Your task to perform on an android device: Go to settings Image 0: 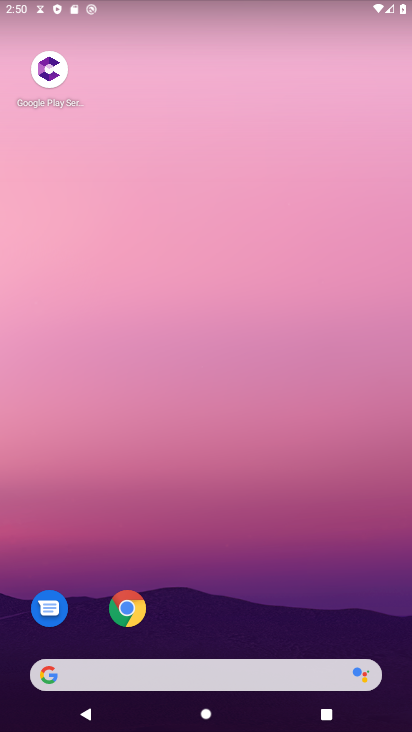
Step 0: drag from (227, 595) to (227, 196)
Your task to perform on an android device: Go to settings Image 1: 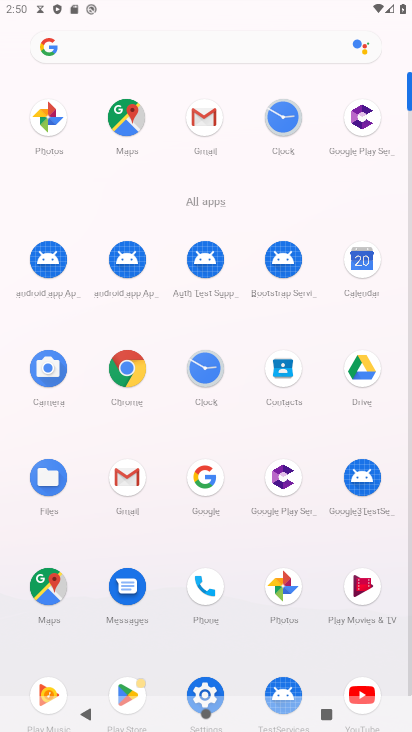
Step 1: click (208, 686)
Your task to perform on an android device: Go to settings Image 2: 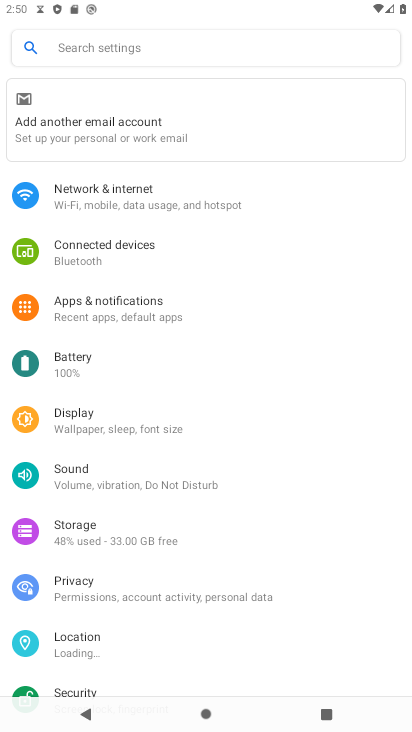
Step 2: task complete